Your task to perform on an android device: Open the phone app and click the voicemail tab. Image 0: 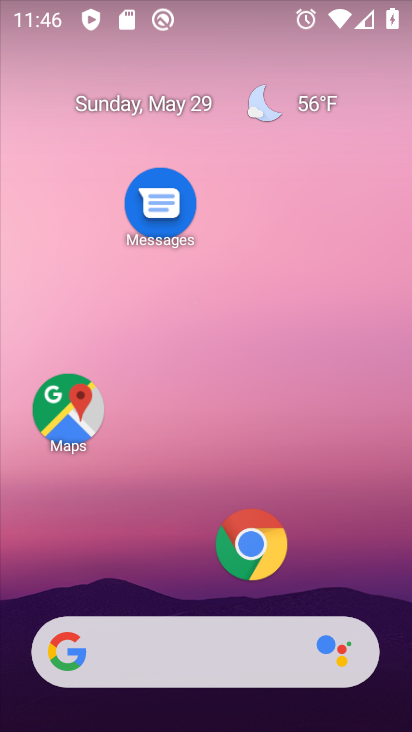
Step 0: drag from (188, 591) to (202, 106)
Your task to perform on an android device: Open the phone app and click the voicemail tab. Image 1: 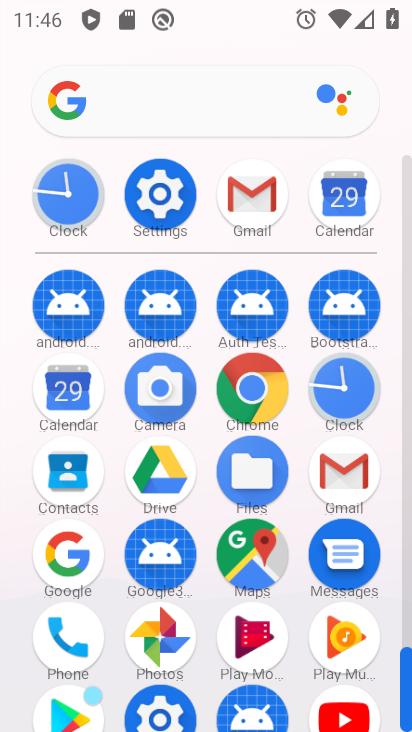
Step 1: drag from (200, 689) to (207, 226)
Your task to perform on an android device: Open the phone app and click the voicemail tab. Image 2: 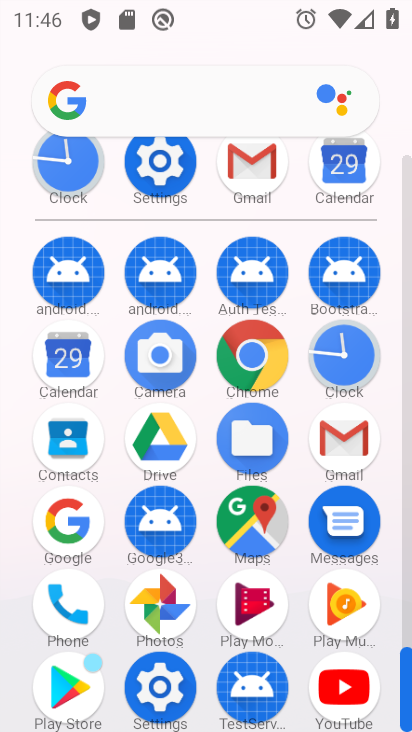
Step 2: click (62, 602)
Your task to perform on an android device: Open the phone app and click the voicemail tab. Image 3: 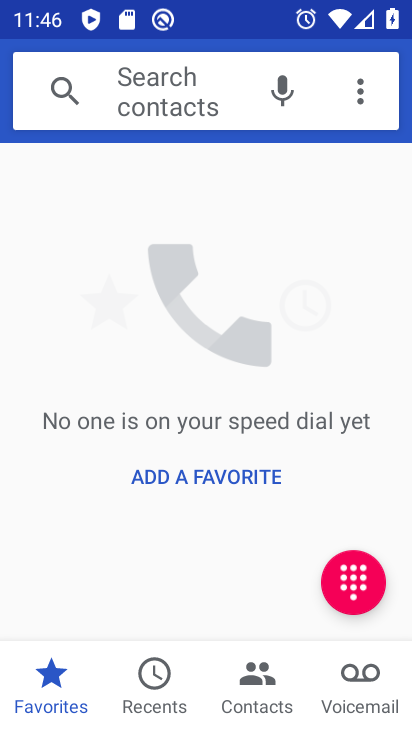
Step 3: click (361, 680)
Your task to perform on an android device: Open the phone app and click the voicemail tab. Image 4: 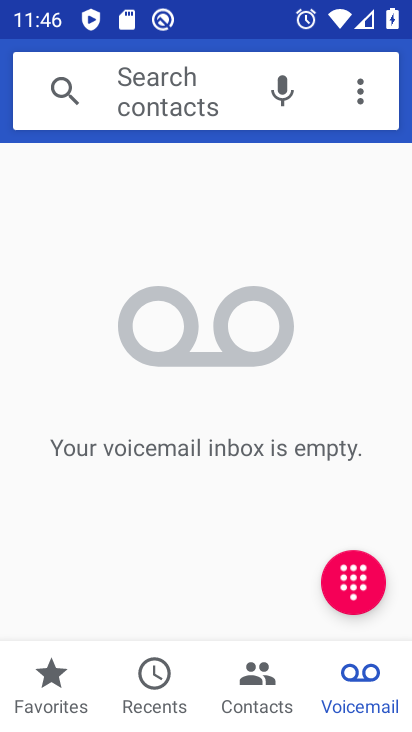
Step 4: task complete